Your task to perform on an android device: change alarm snooze length Image 0: 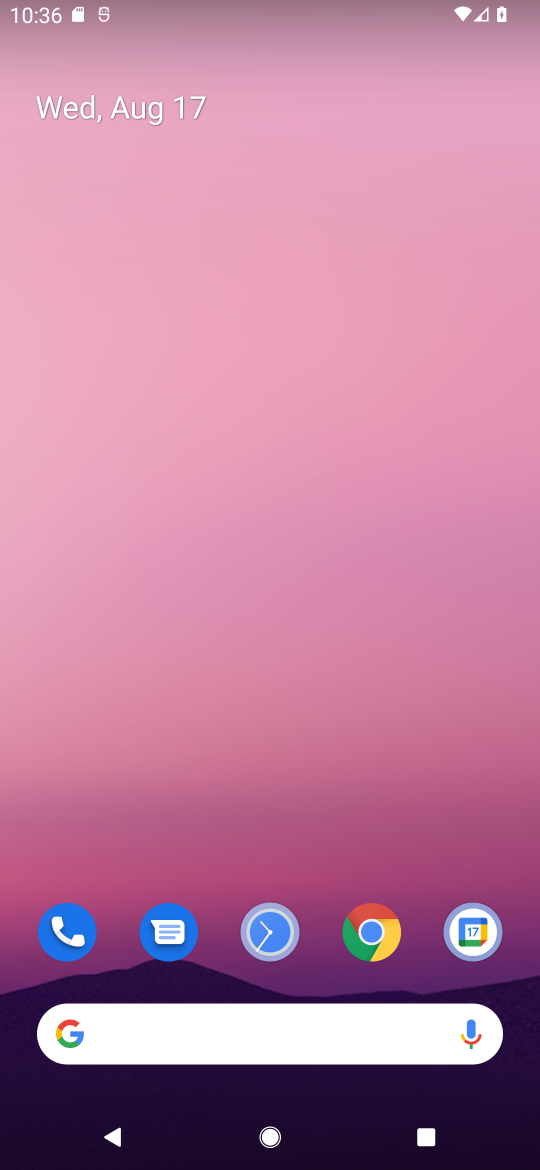
Step 0: drag from (332, 769) to (331, 125)
Your task to perform on an android device: change alarm snooze length Image 1: 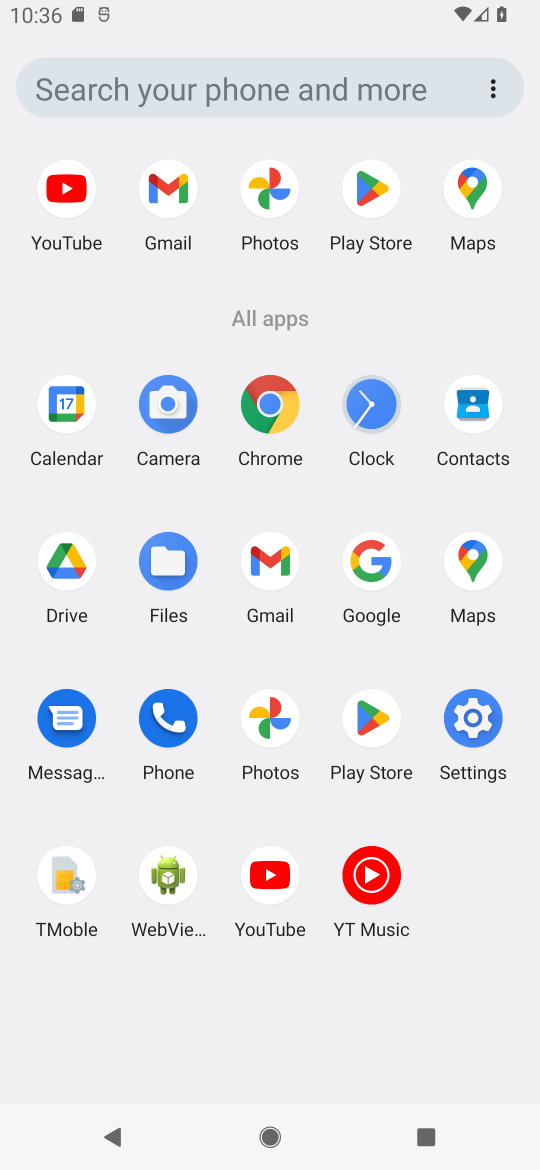
Step 1: click (376, 411)
Your task to perform on an android device: change alarm snooze length Image 2: 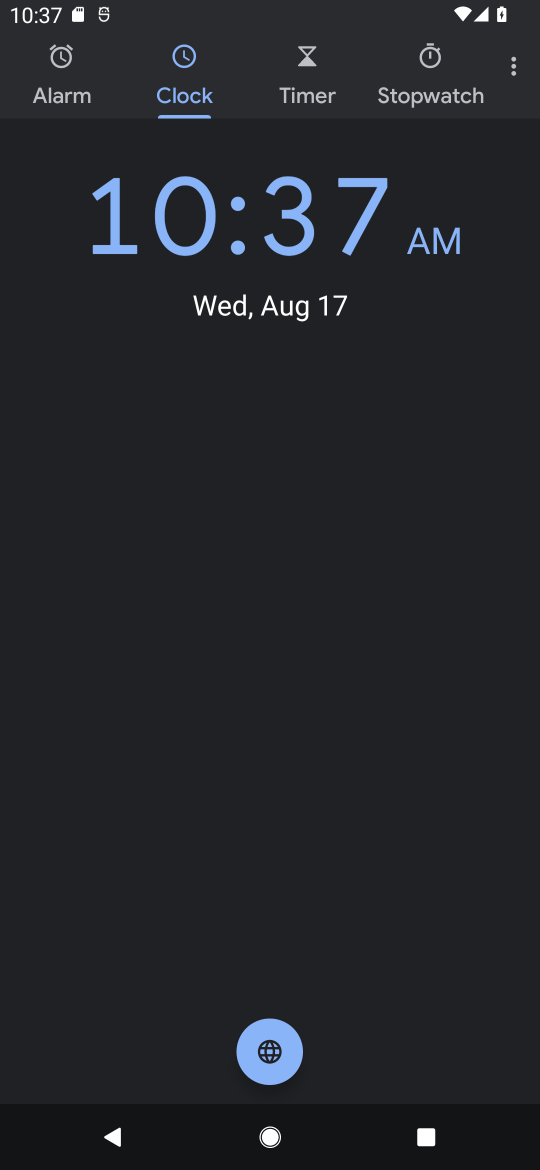
Step 2: click (55, 89)
Your task to perform on an android device: change alarm snooze length Image 3: 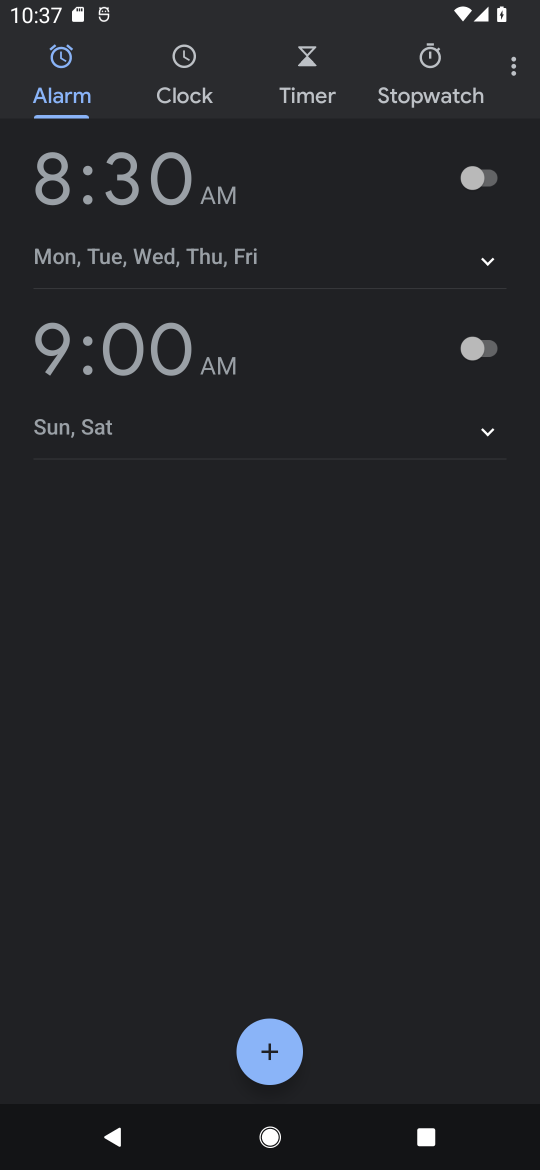
Step 3: task complete